Your task to perform on an android device: Search for lg ultragear on bestbuy.com, select the first entry, and add it to the cart. Image 0: 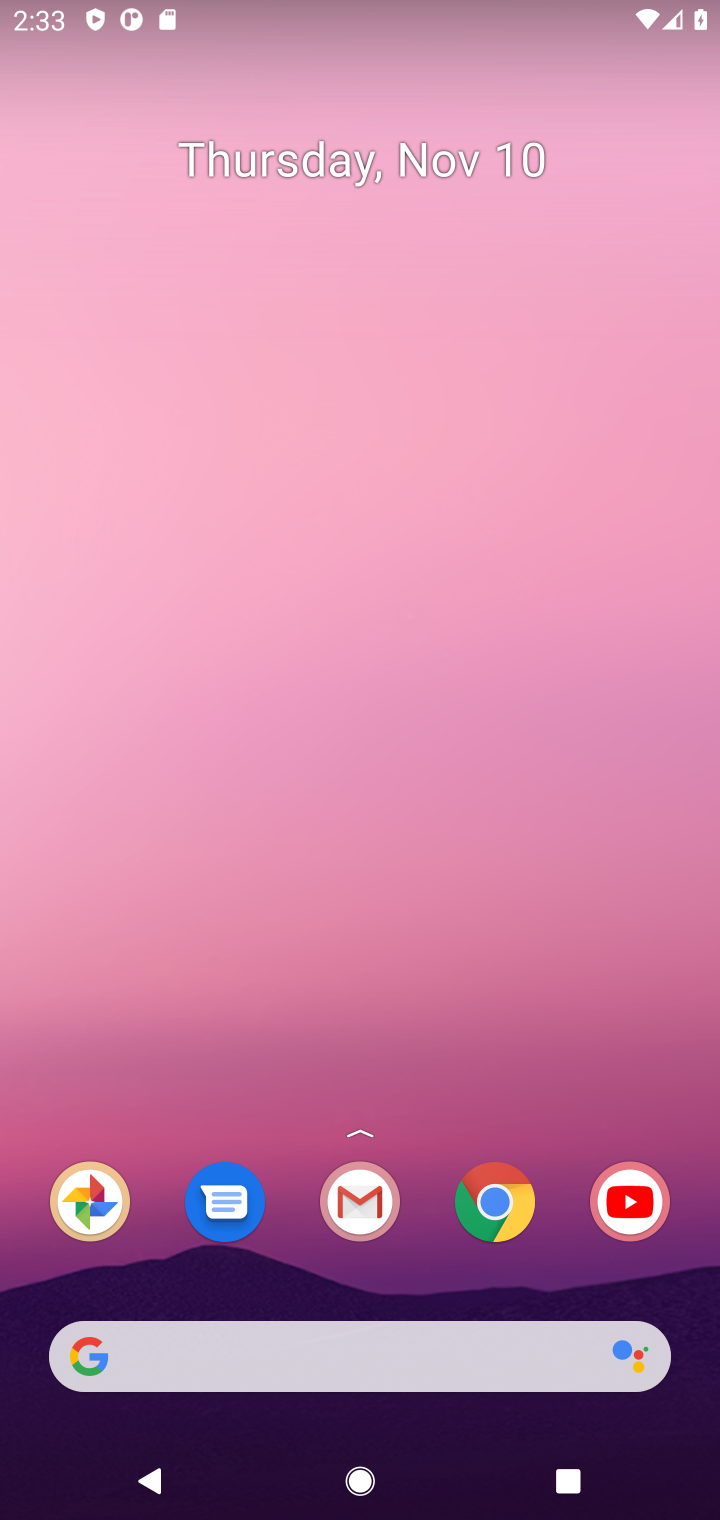
Step 0: click (494, 1204)
Your task to perform on an android device: Search for lg ultragear on bestbuy.com, select the first entry, and add it to the cart. Image 1: 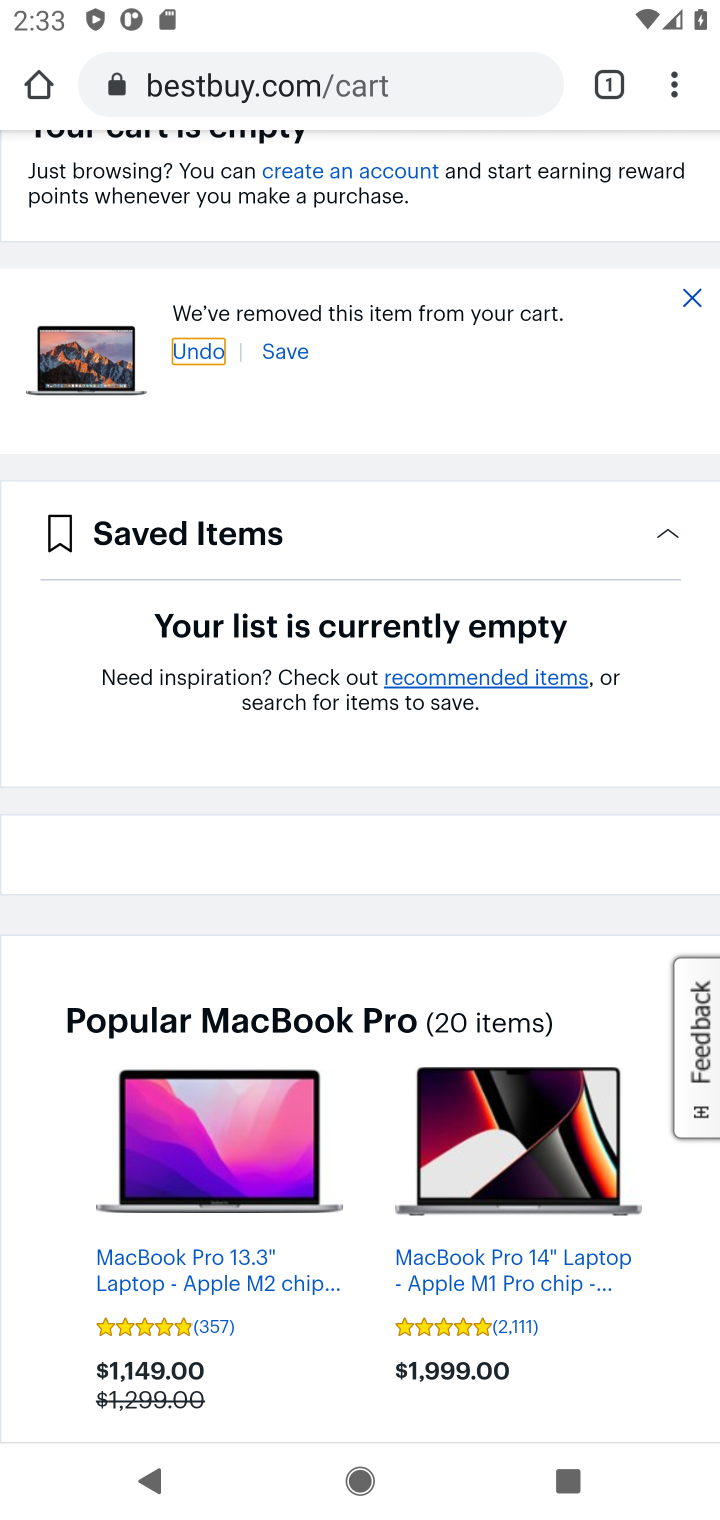
Step 1: drag from (515, 316) to (565, 1113)
Your task to perform on an android device: Search for lg ultragear on bestbuy.com, select the first entry, and add it to the cart. Image 2: 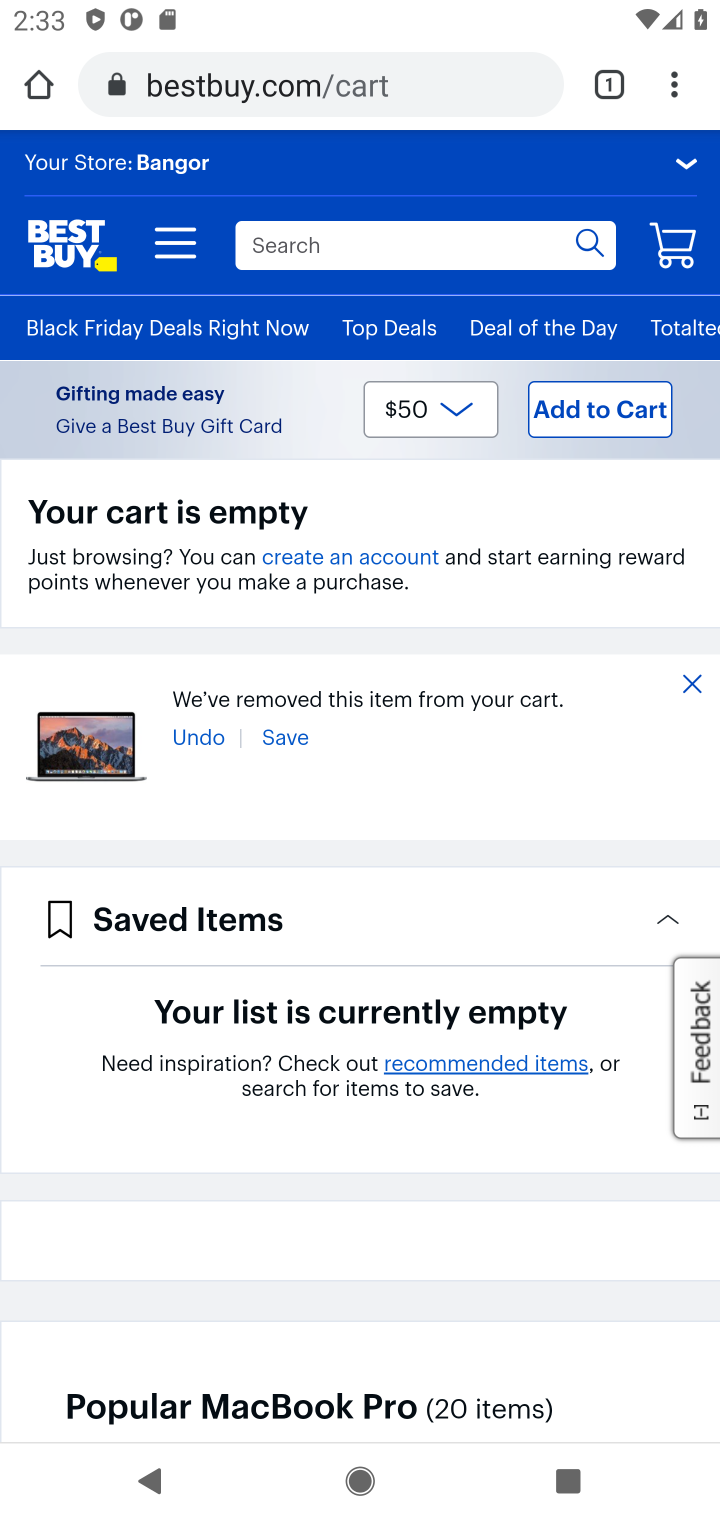
Step 2: click (695, 684)
Your task to perform on an android device: Search for lg ultragear on bestbuy.com, select the first entry, and add it to the cart. Image 3: 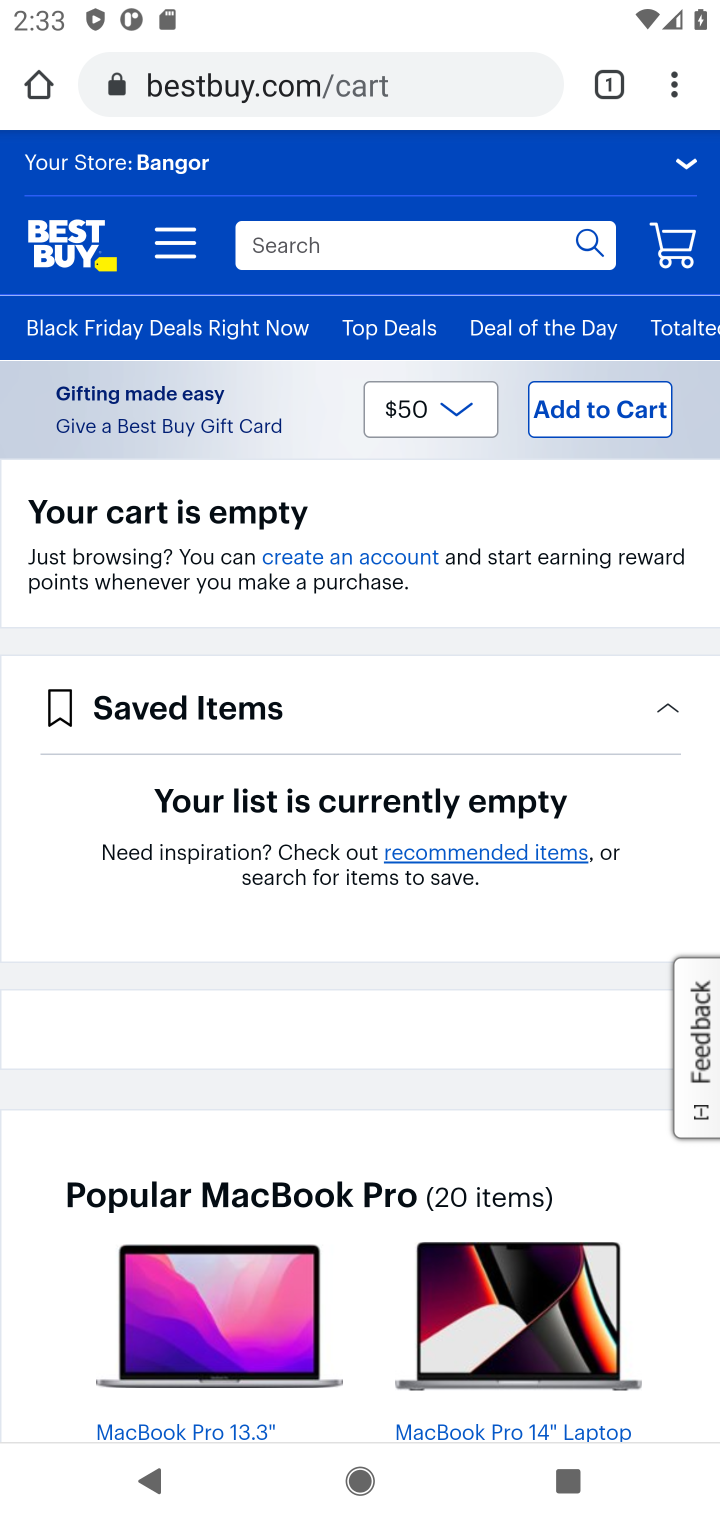
Step 3: click (414, 244)
Your task to perform on an android device: Search for lg ultragear on bestbuy.com, select the first entry, and add it to the cart. Image 4: 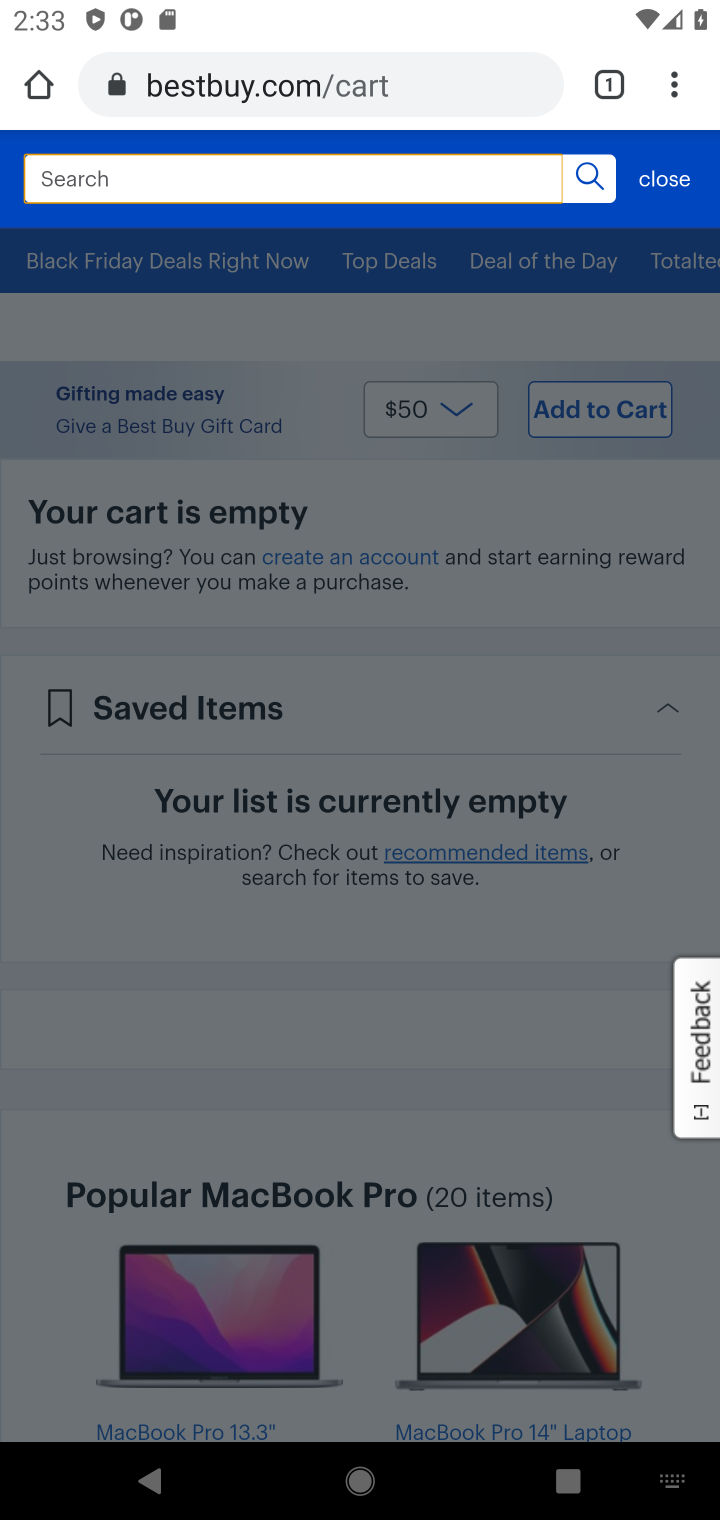
Step 4: press enter
Your task to perform on an android device: Search for lg ultragear on bestbuy.com, select the first entry, and add it to the cart. Image 5: 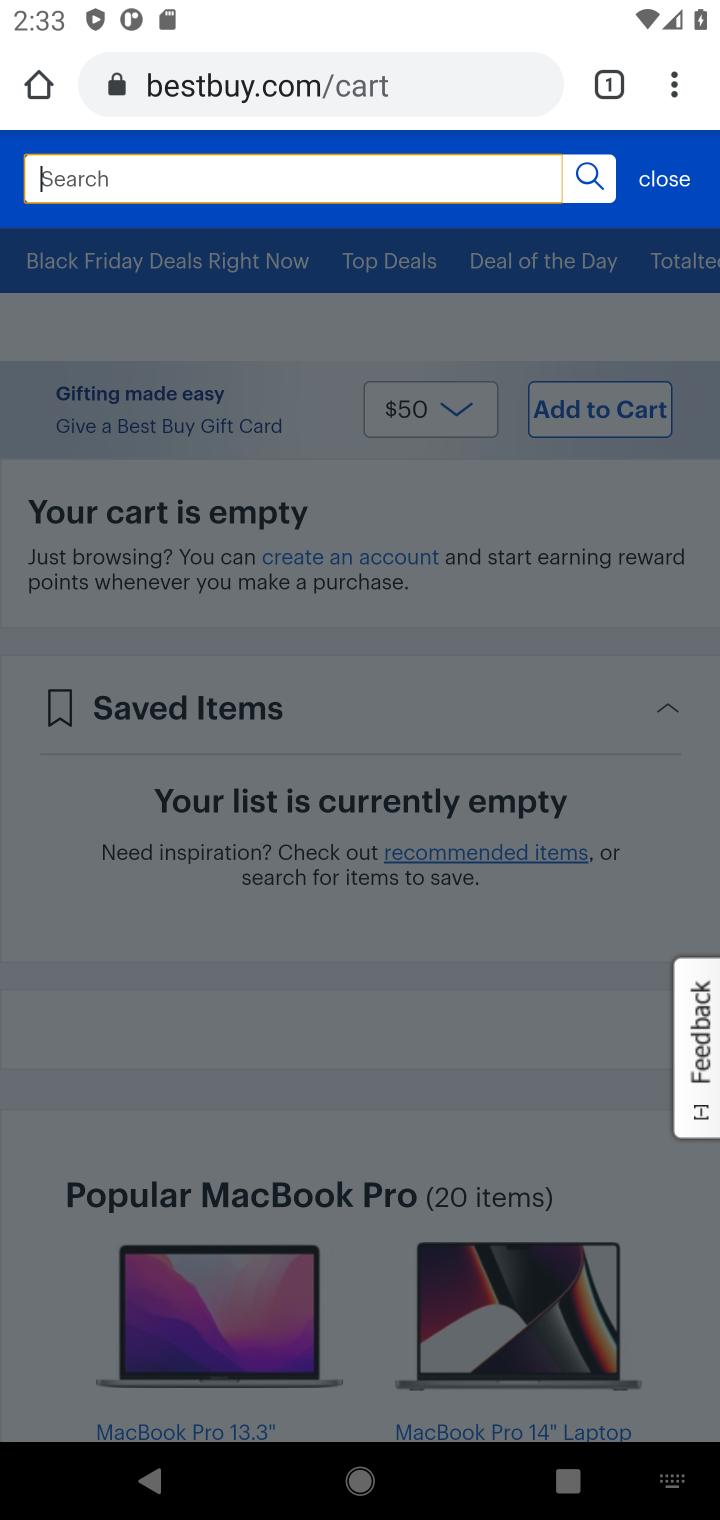
Step 5: type "lg ultragear"
Your task to perform on an android device: Search for lg ultragear on bestbuy.com, select the first entry, and add it to the cart. Image 6: 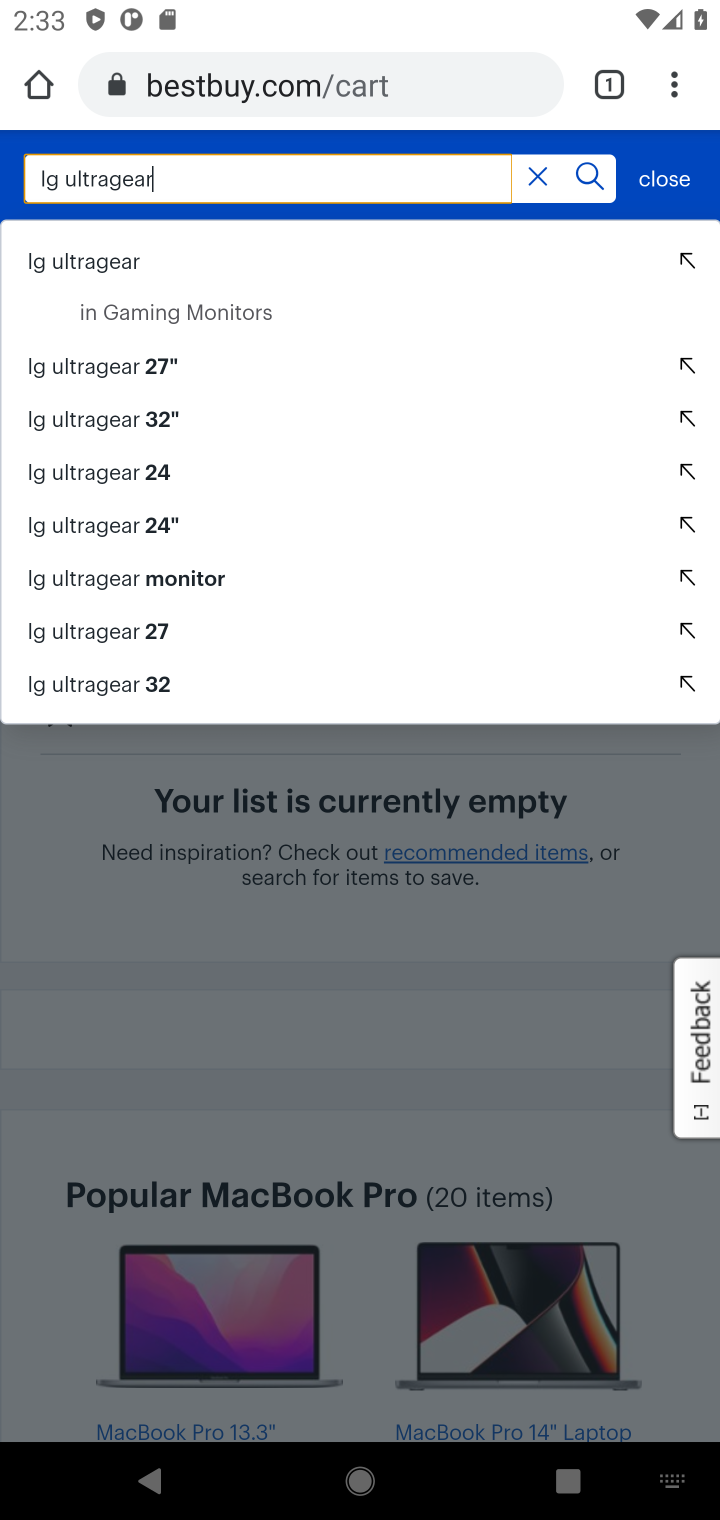
Step 6: click (117, 252)
Your task to perform on an android device: Search for lg ultragear on bestbuy.com, select the first entry, and add it to the cart. Image 7: 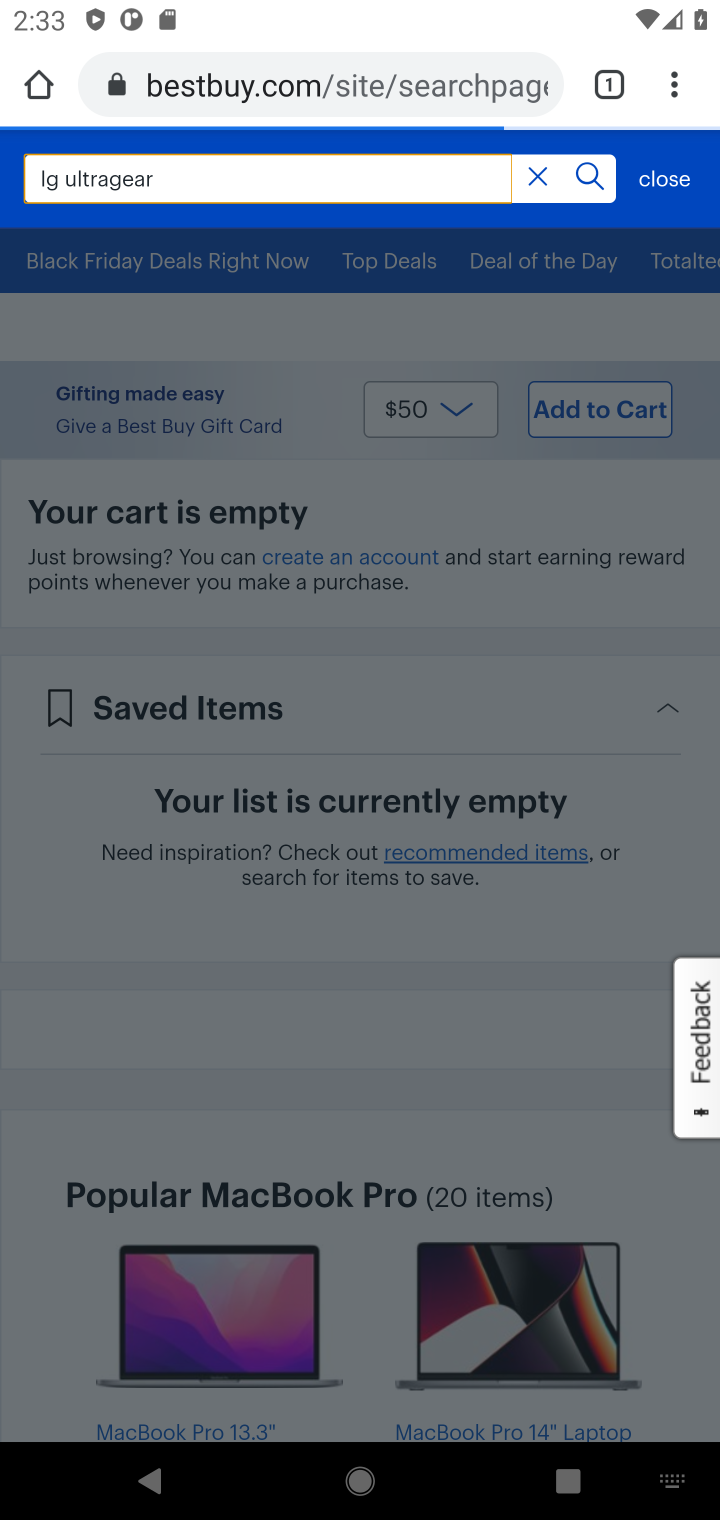
Step 7: click (328, 180)
Your task to perform on an android device: Search for lg ultragear on bestbuy.com, select the first entry, and add it to the cart. Image 8: 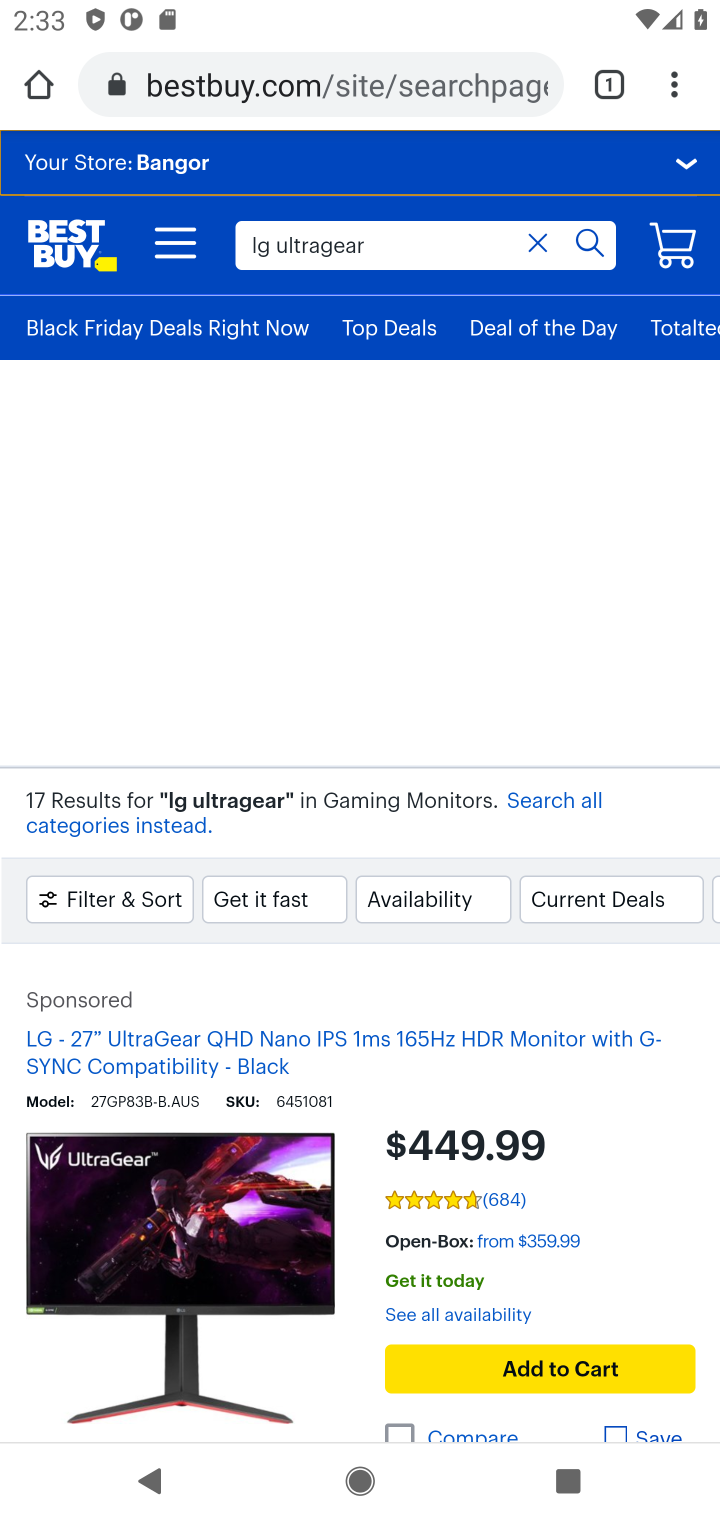
Step 8: click (258, 1037)
Your task to perform on an android device: Search for lg ultragear on bestbuy.com, select the first entry, and add it to the cart. Image 9: 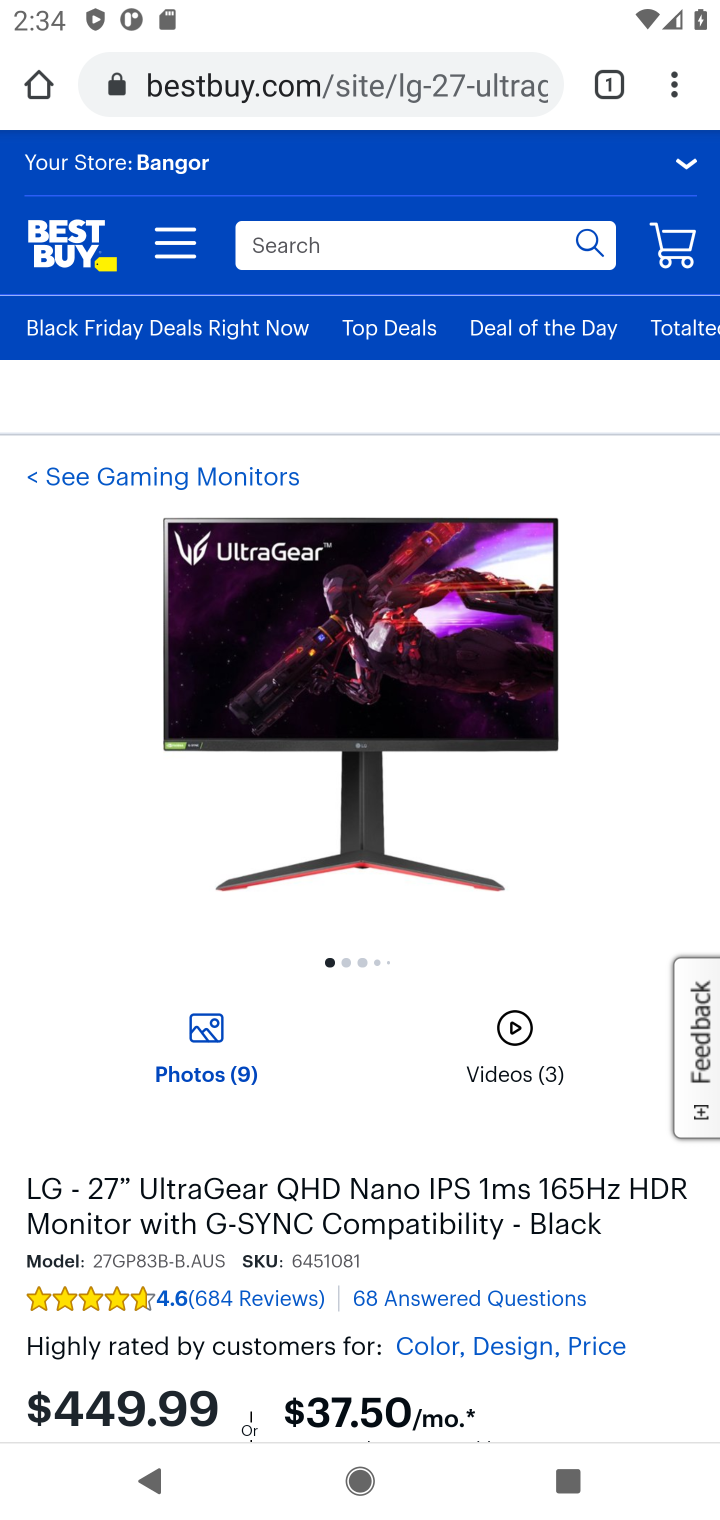
Step 9: drag from (538, 1278) to (398, 521)
Your task to perform on an android device: Search for lg ultragear on bestbuy.com, select the first entry, and add it to the cart. Image 10: 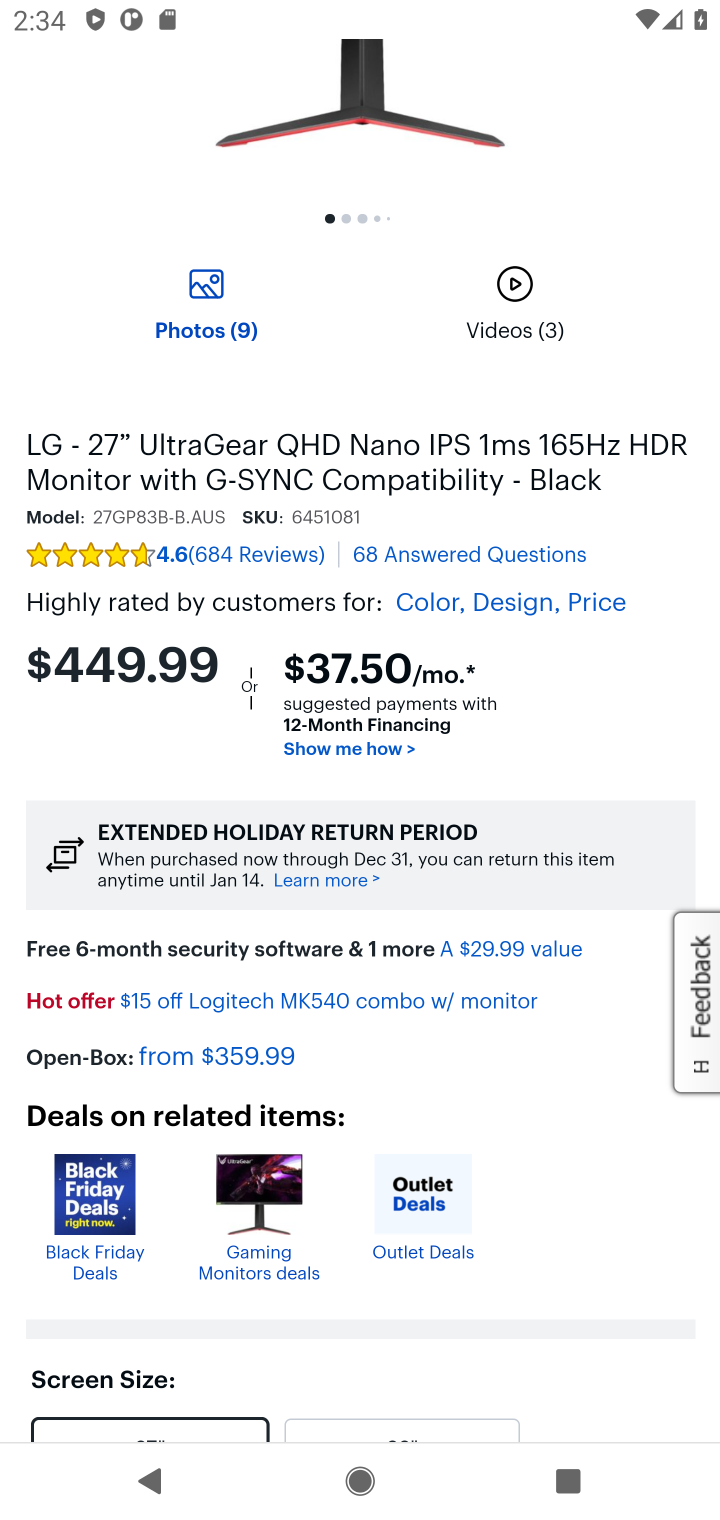
Step 10: drag from (565, 854) to (523, 758)
Your task to perform on an android device: Search for lg ultragear on bestbuy.com, select the first entry, and add it to the cart. Image 11: 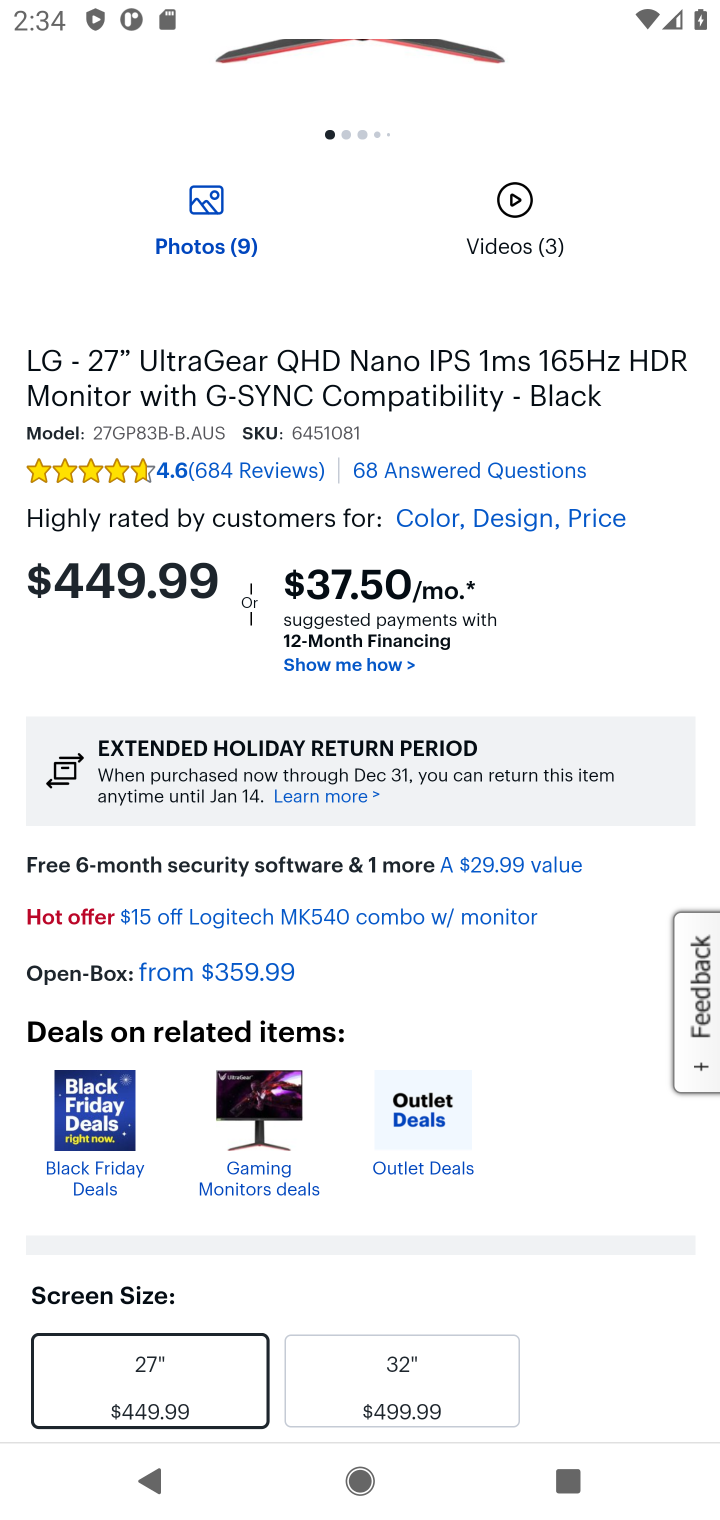
Step 11: drag from (566, 1179) to (466, 774)
Your task to perform on an android device: Search for lg ultragear on bestbuy.com, select the first entry, and add it to the cart. Image 12: 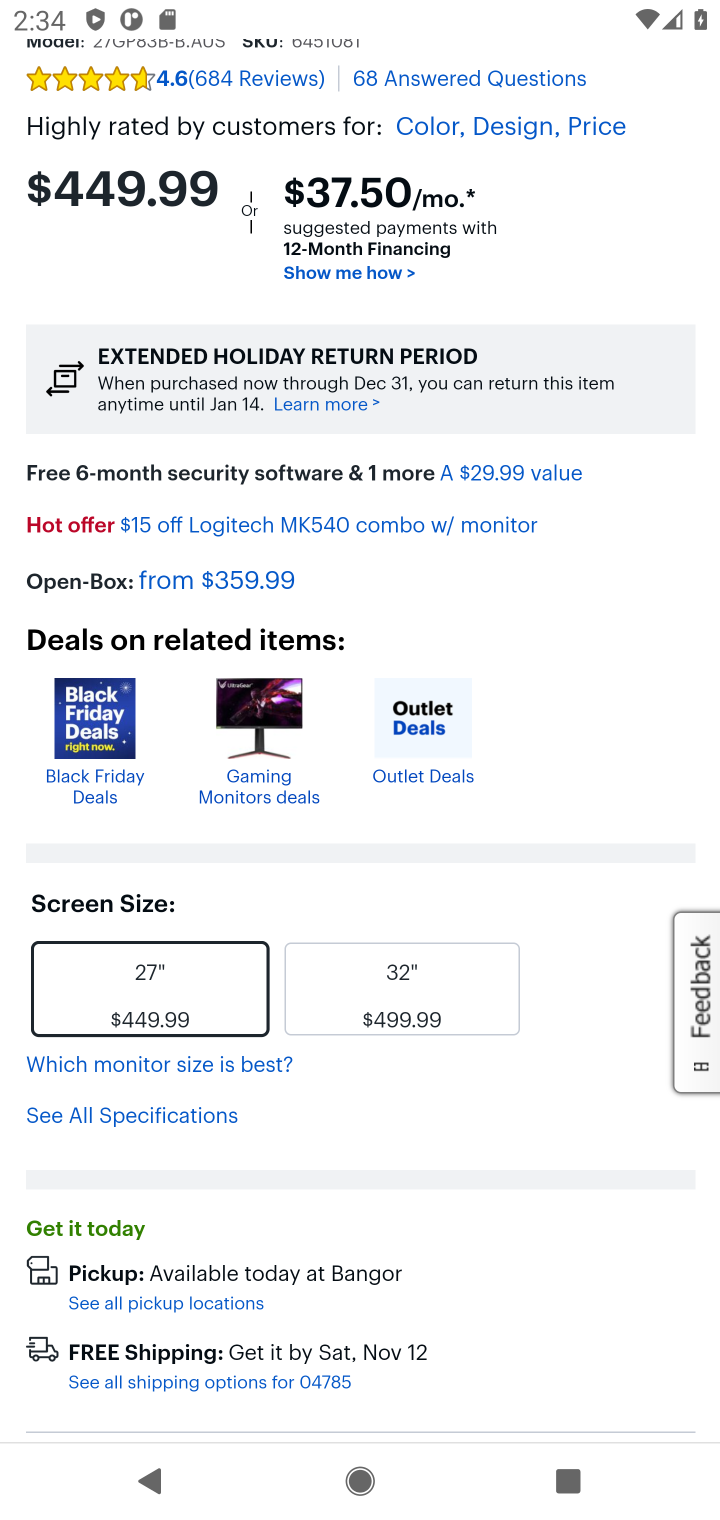
Step 12: drag from (573, 1163) to (557, 611)
Your task to perform on an android device: Search for lg ultragear on bestbuy.com, select the first entry, and add it to the cart. Image 13: 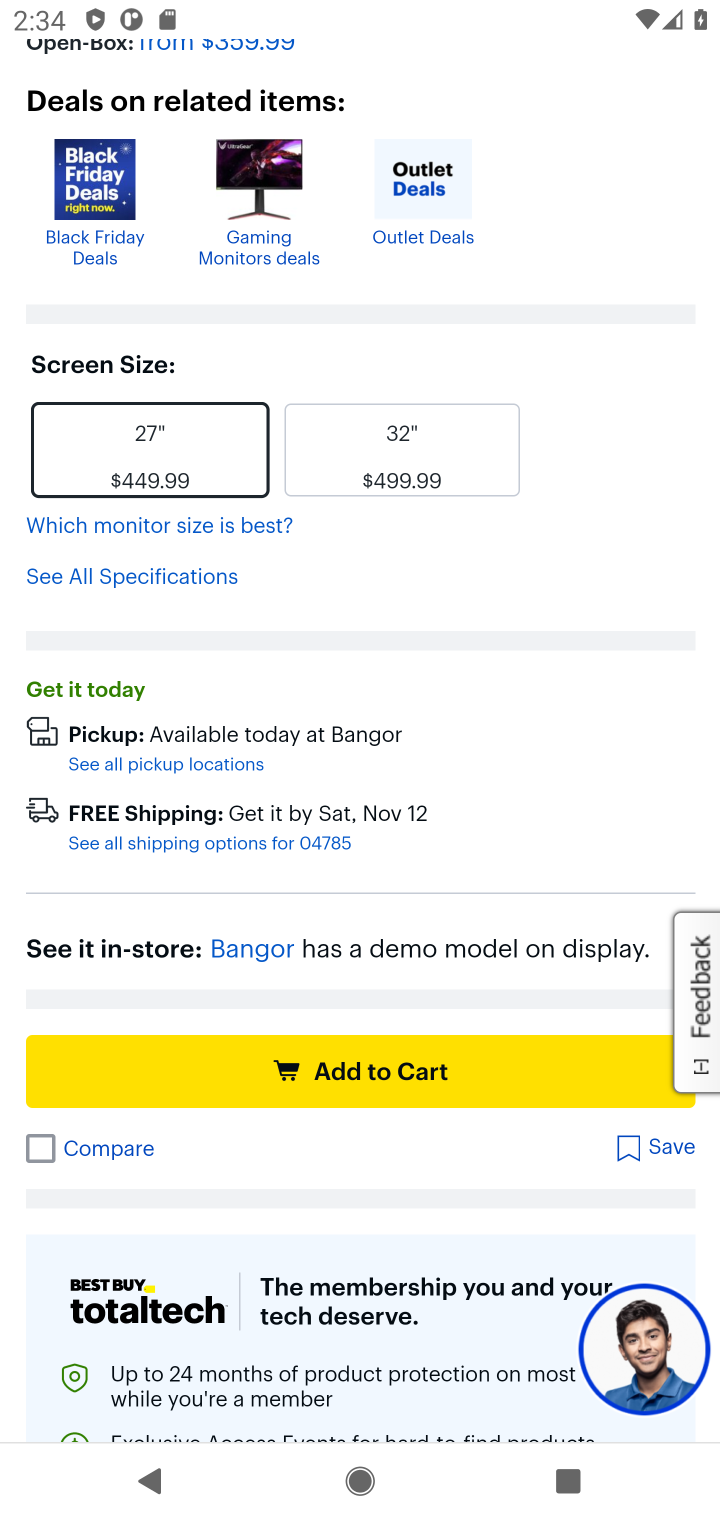
Step 13: click (484, 1064)
Your task to perform on an android device: Search for lg ultragear on bestbuy.com, select the first entry, and add it to the cart. Image 14: 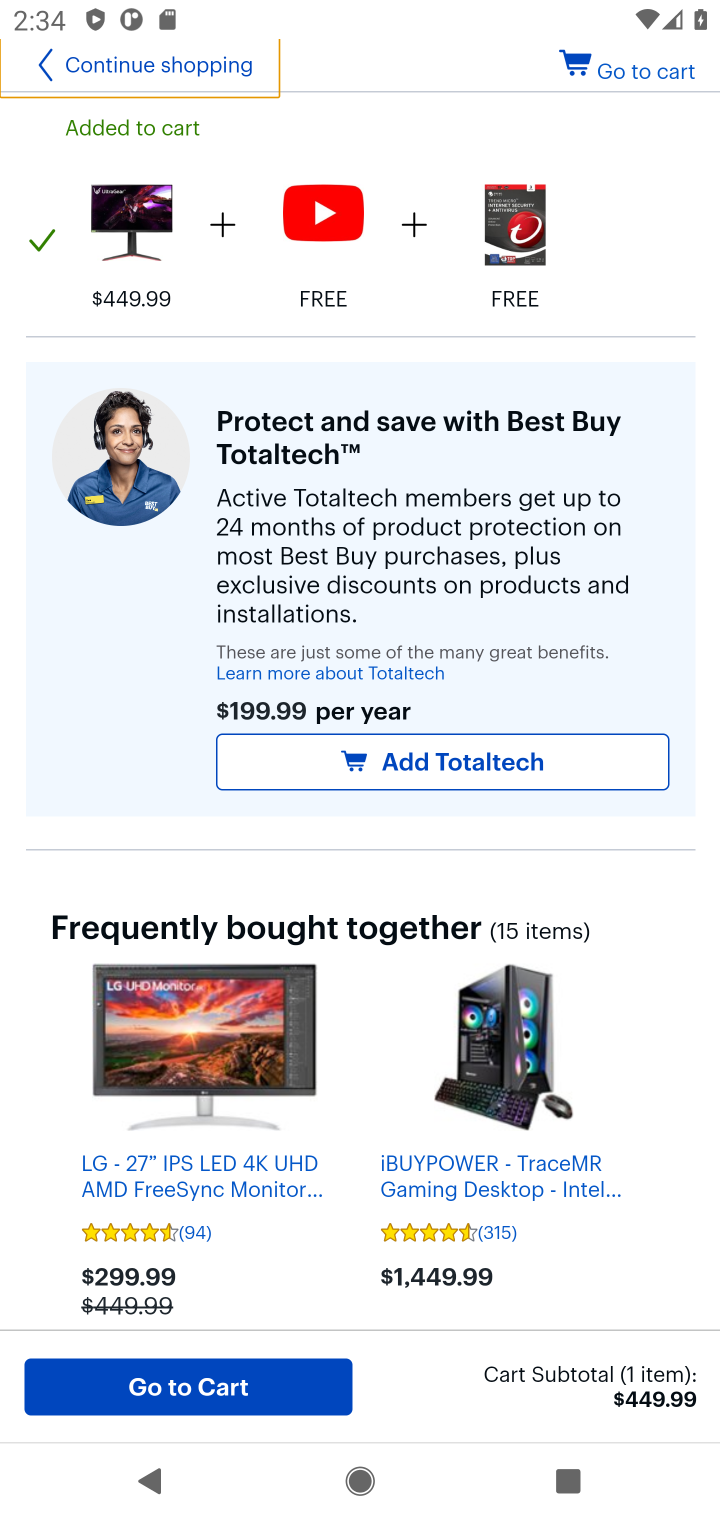
Step 14: task complete